Your task to perform on an android device: turn notification dots on Image 0: 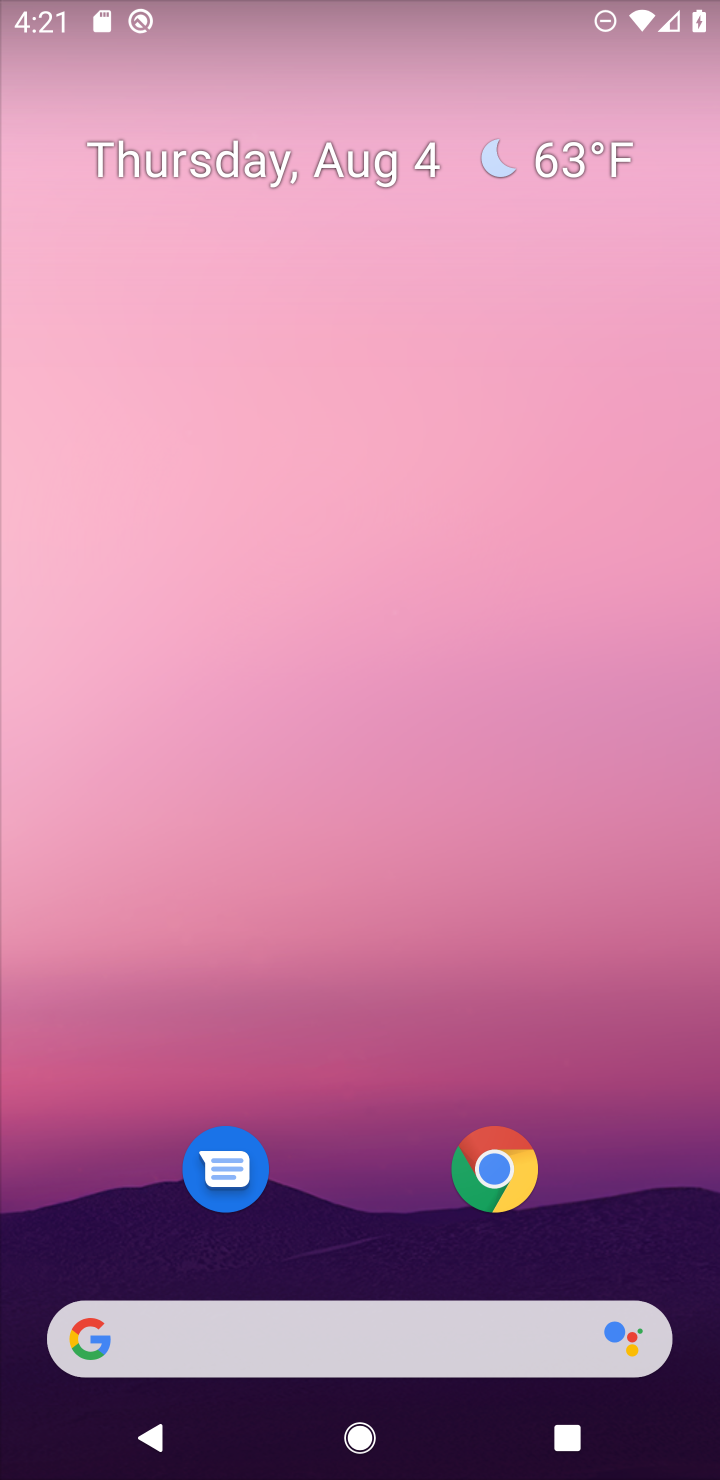
Step 0: drag from (409, 798) to (663, 8)
Your task to perform on an android device: turn notification dots on Image 1: 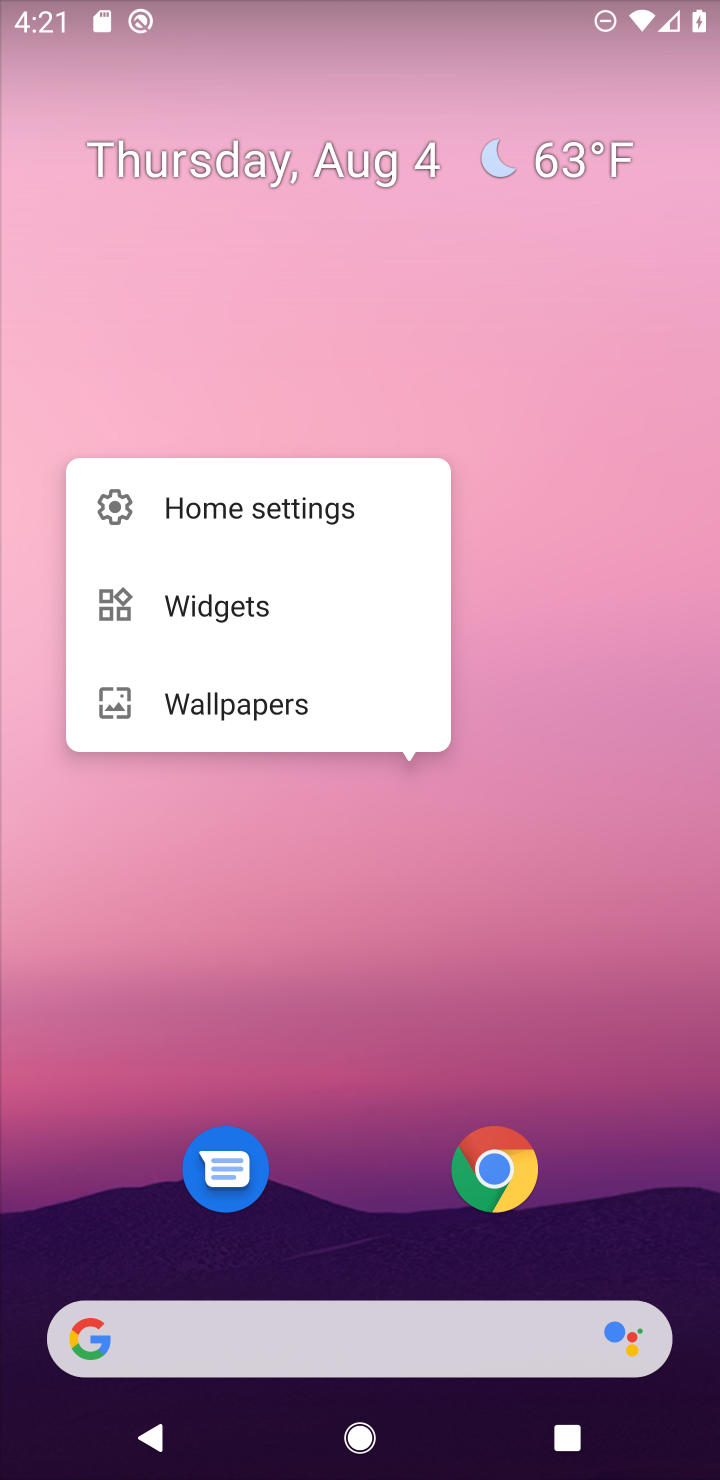
Step 1: drag from (380, 1003) to (369, 120)
Your task to perform on an android device: turn notification dots on Image 2: 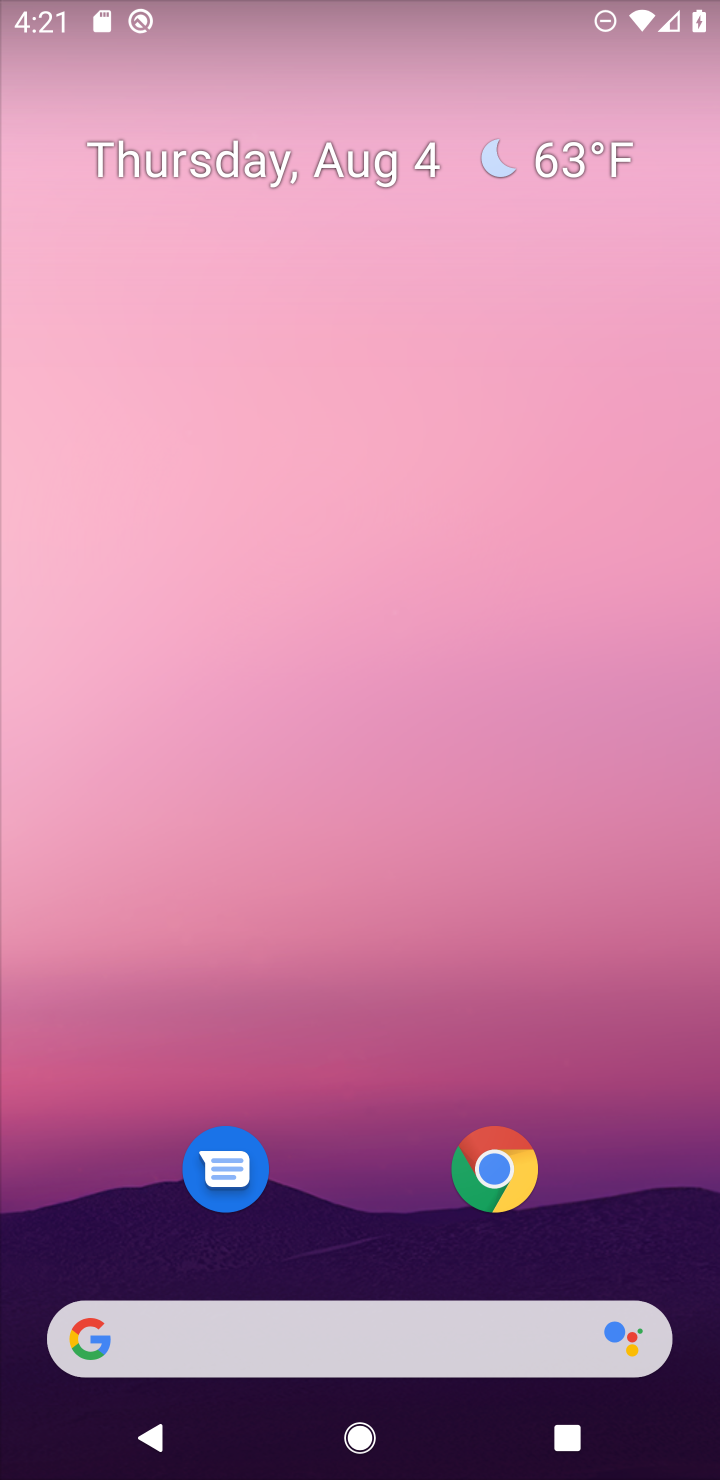
Step 2: drag from (281, 545) to (256, 47)
Your task to perform on an android device: turn notification dots on Image 3: 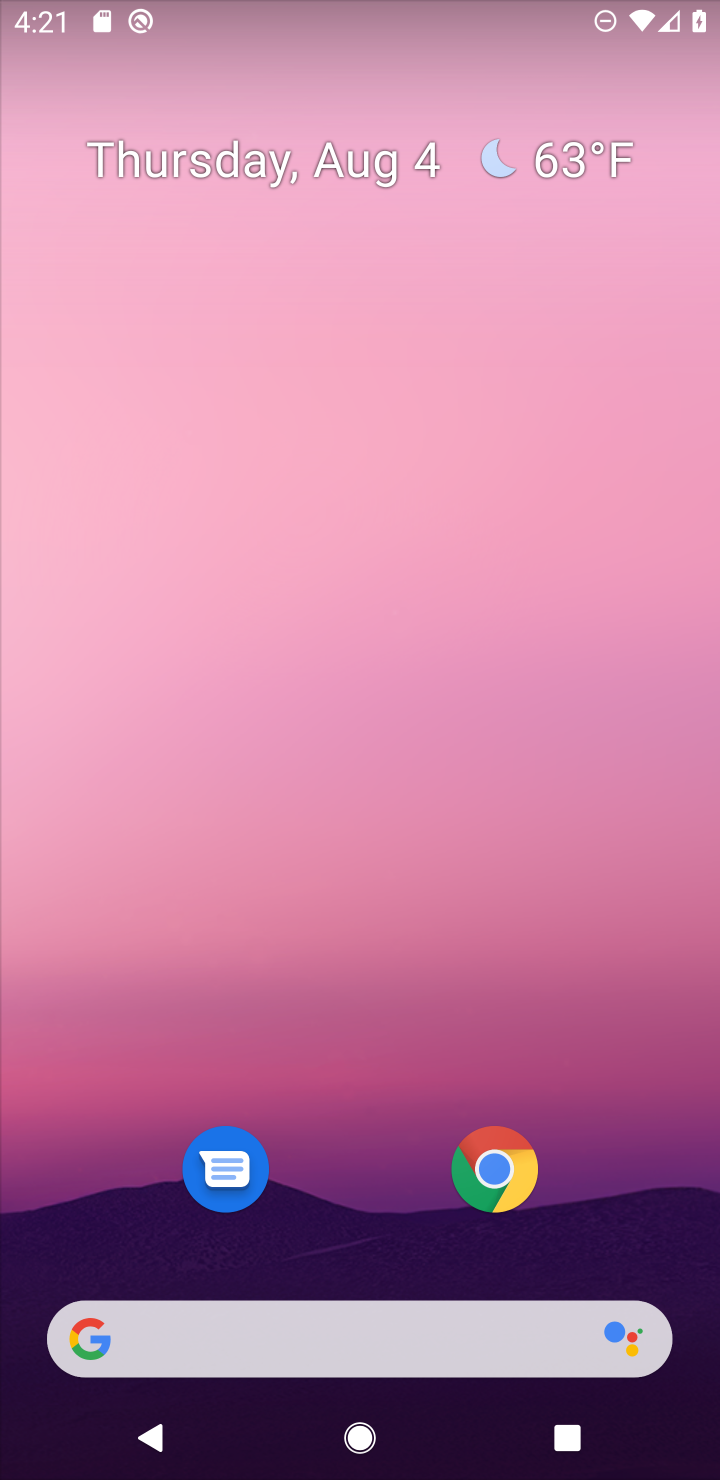
Step 3: drag from (377, 985) to (585, 14)
Your task to perform on an android device: turn notification dots on Image 4: 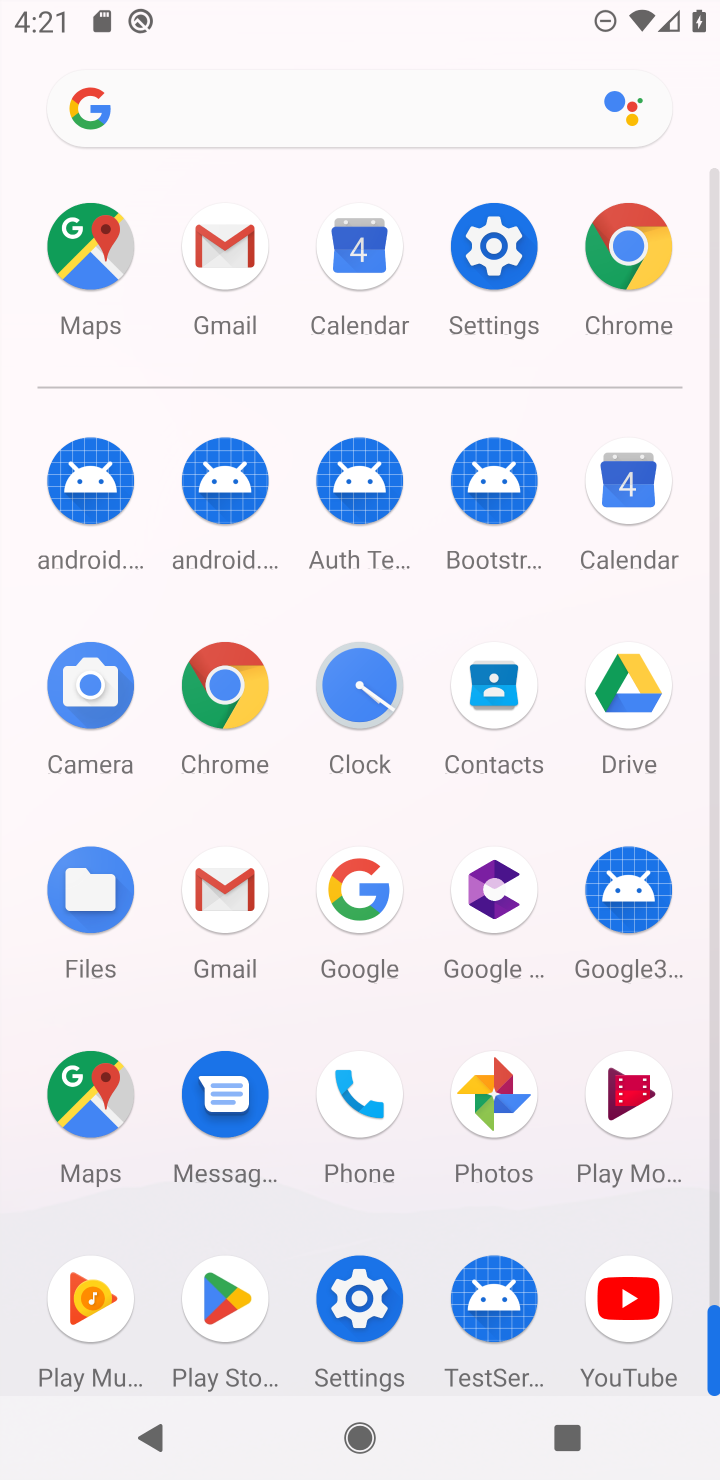
Step 4: click (502, 284)
Your task to perform on an android device: turn notification dots on Image 5: 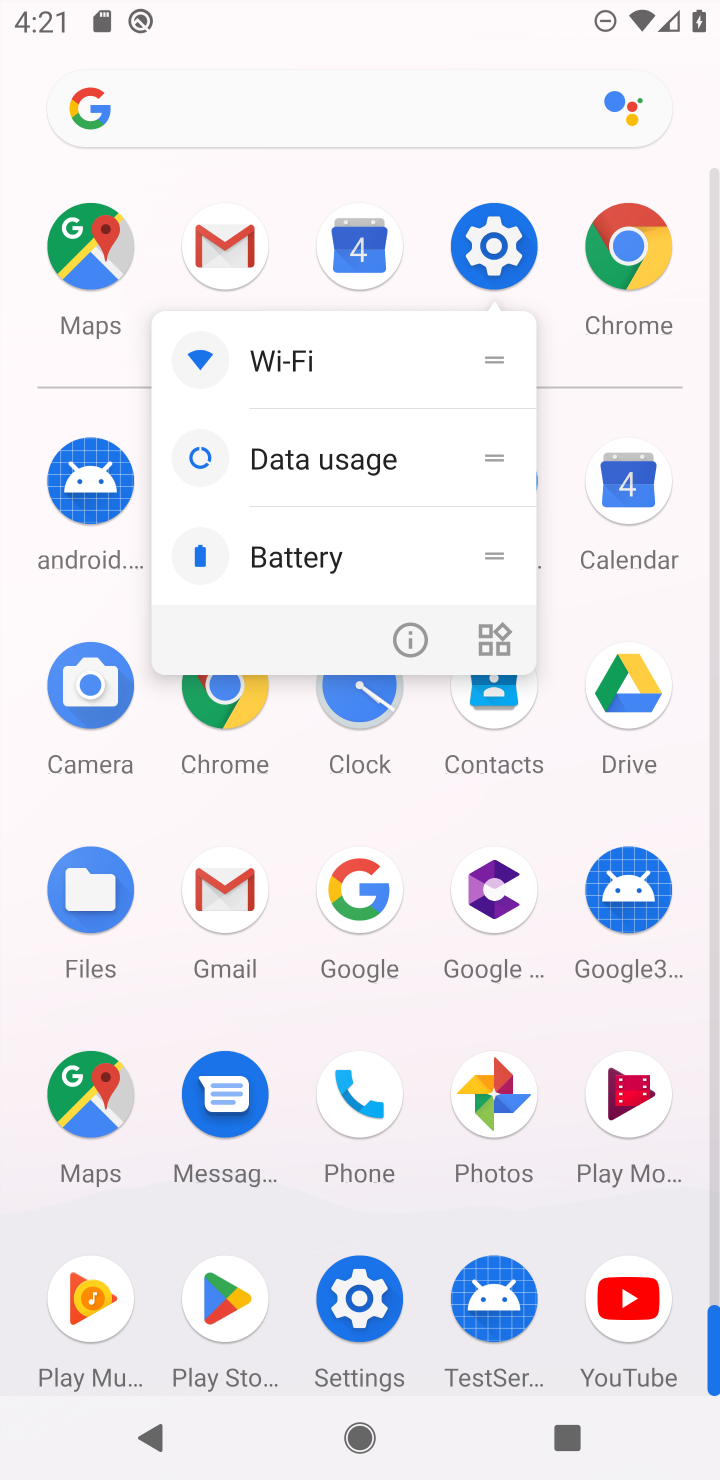
Step 5: click (492, 256)
Your task to perform on an android device: turn notification dots on Image 6: 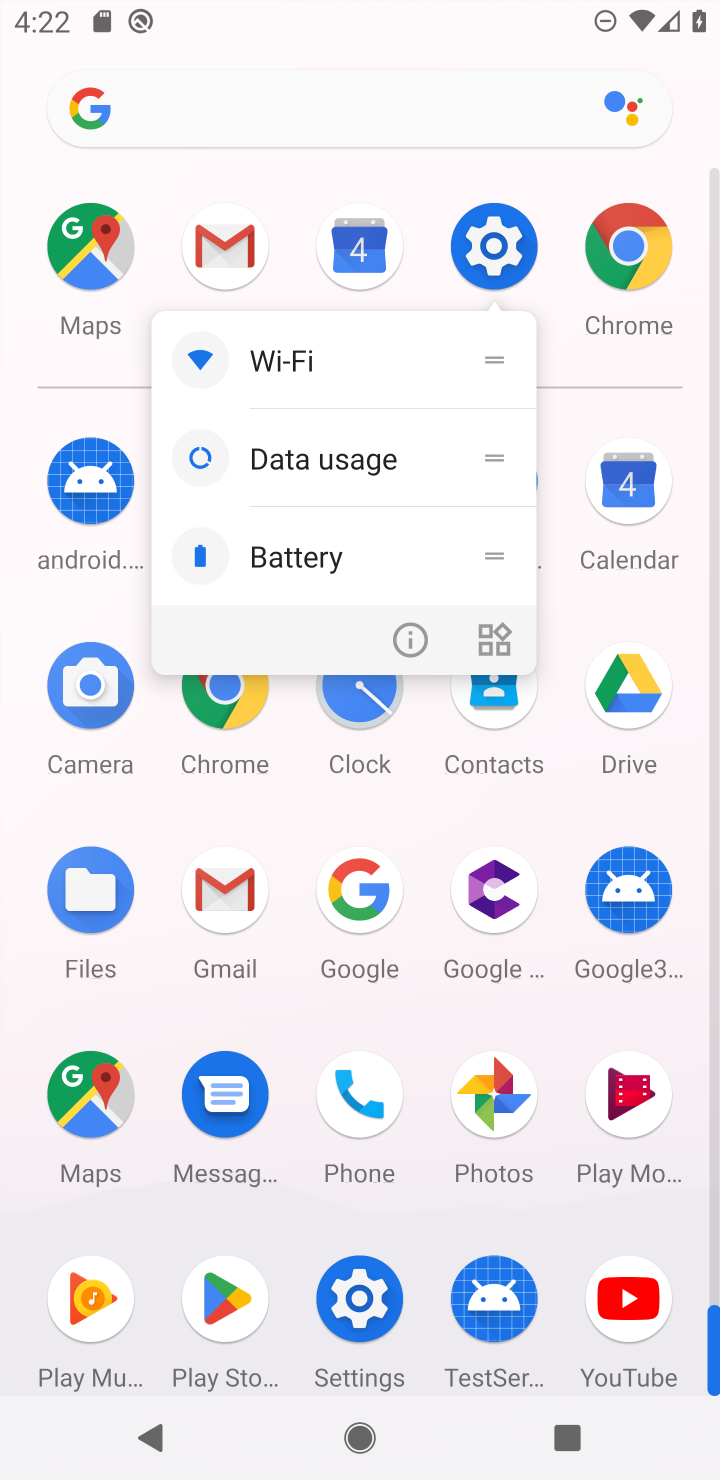
Step 6: click (490, 254)
Your task to perform on an android device: turn notification dots on Image 7: 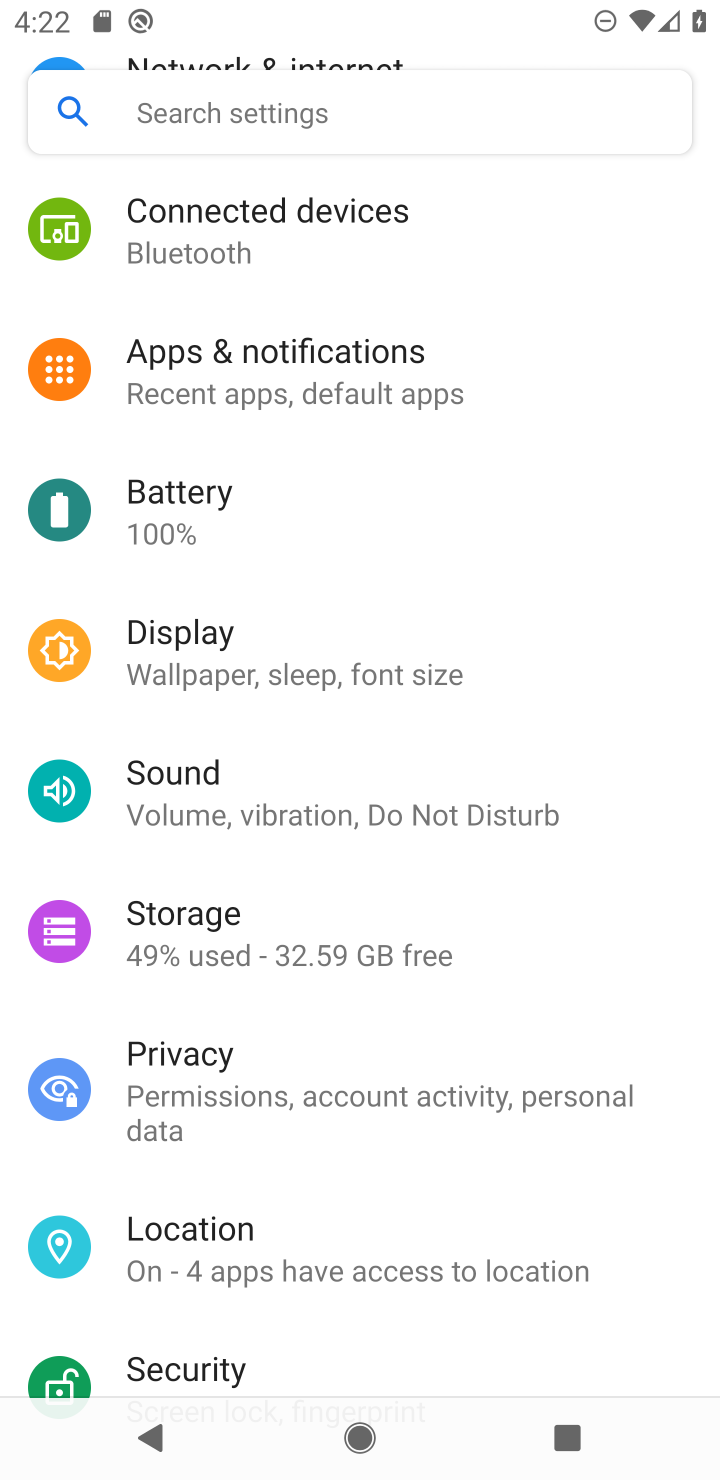
Step 7: drag from (468, 291) to (398, 842)
Your task to perform on an android device: turn notification dots on Image 8: 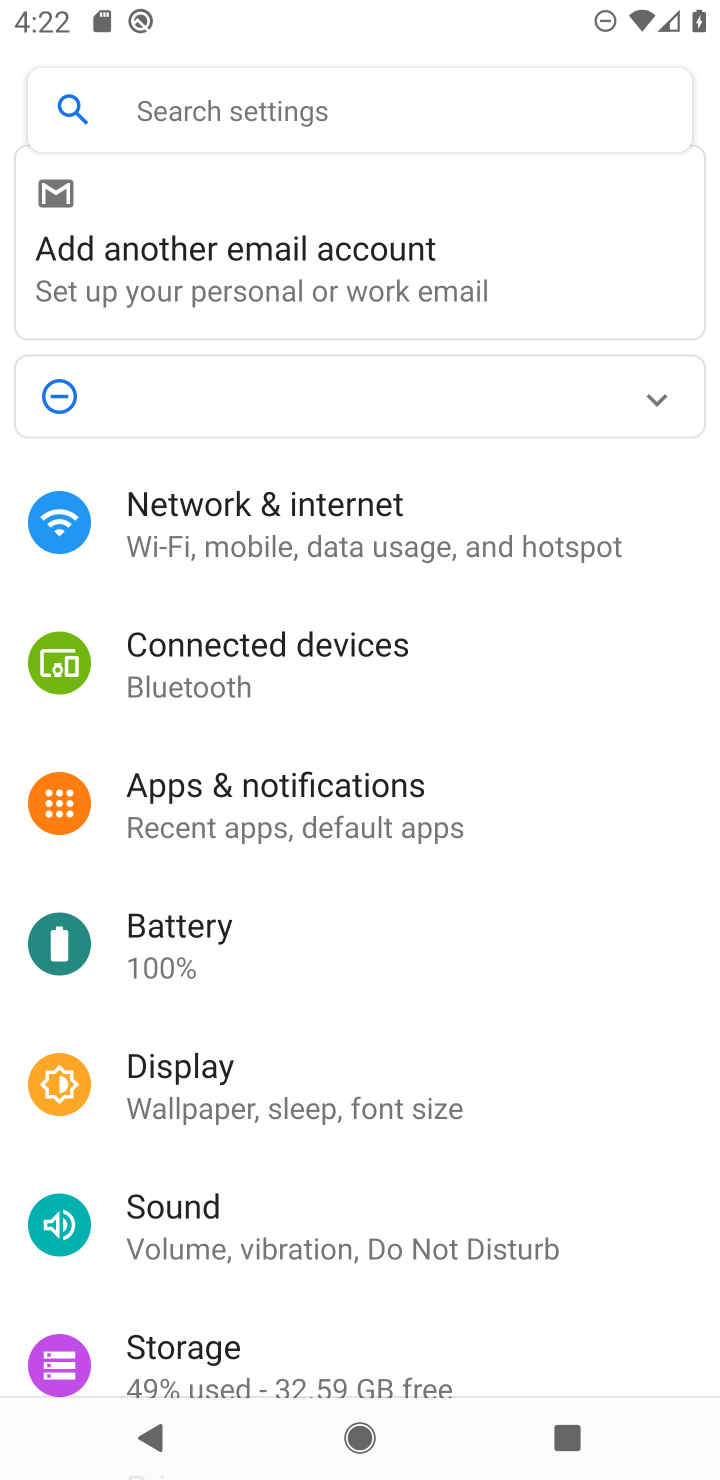
Step 8: click (311, 789)
Your task to perform on an android device: turn notification dots on Image 9: 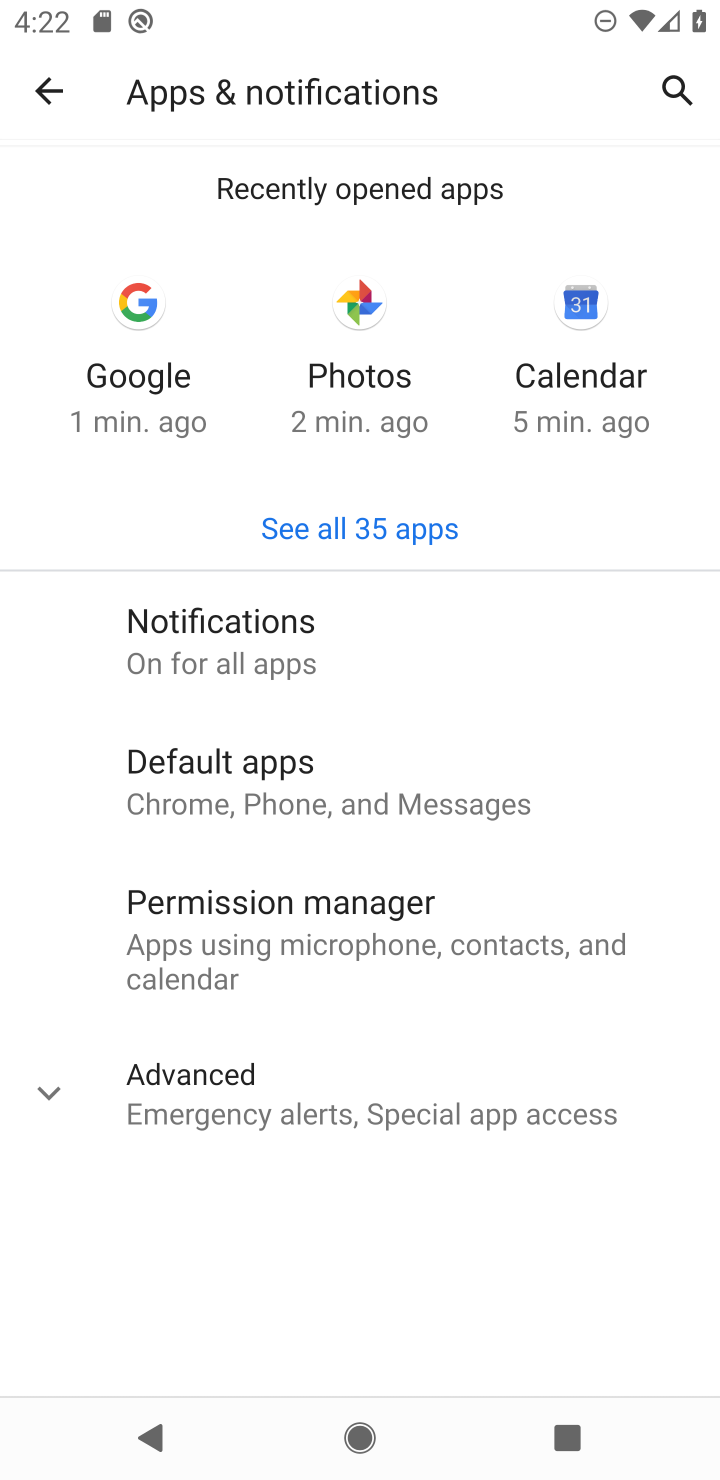
Step 9: click (276, 624)
Your task to perform on an android device: turn notification dots on Image 10: 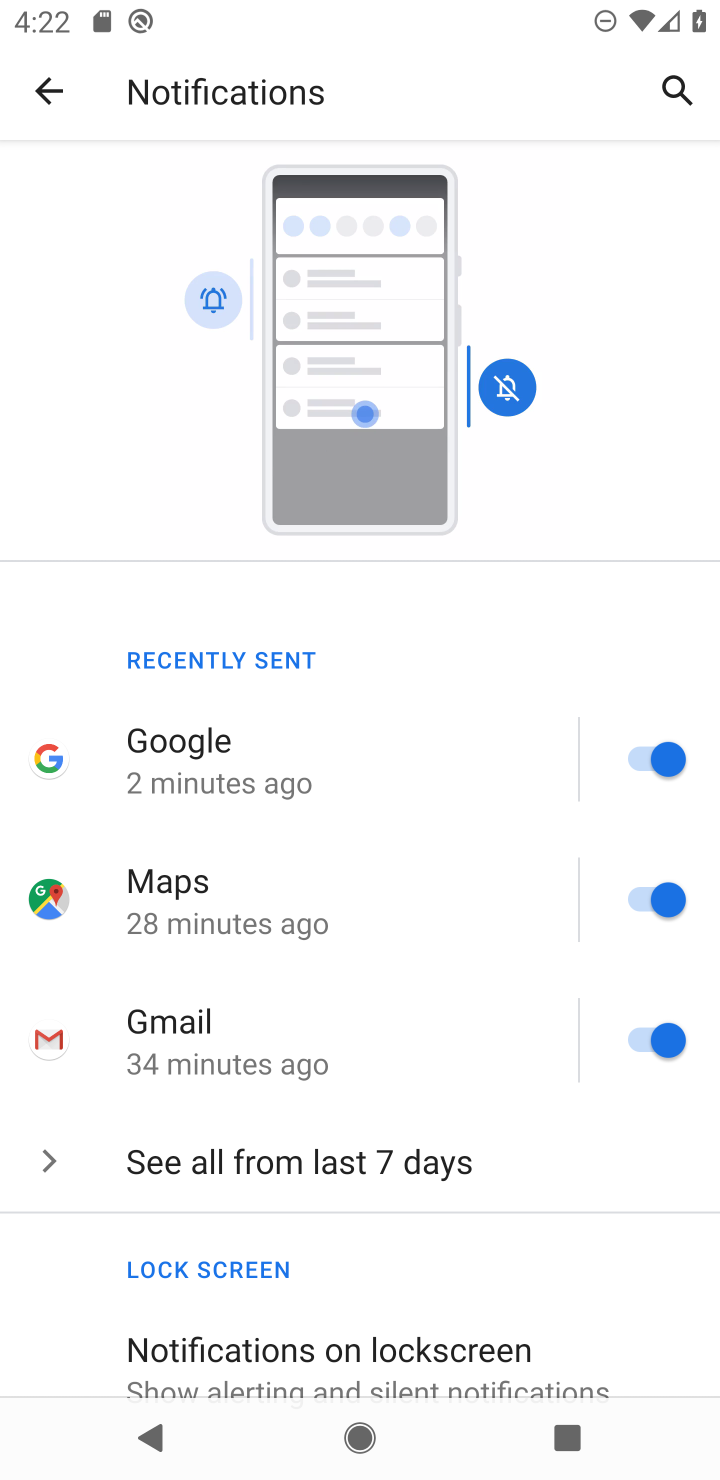
Step 10: drag from (318, 1208) to (337, 329)
Your task to perform on an android device: turn notification dots on Image 11: 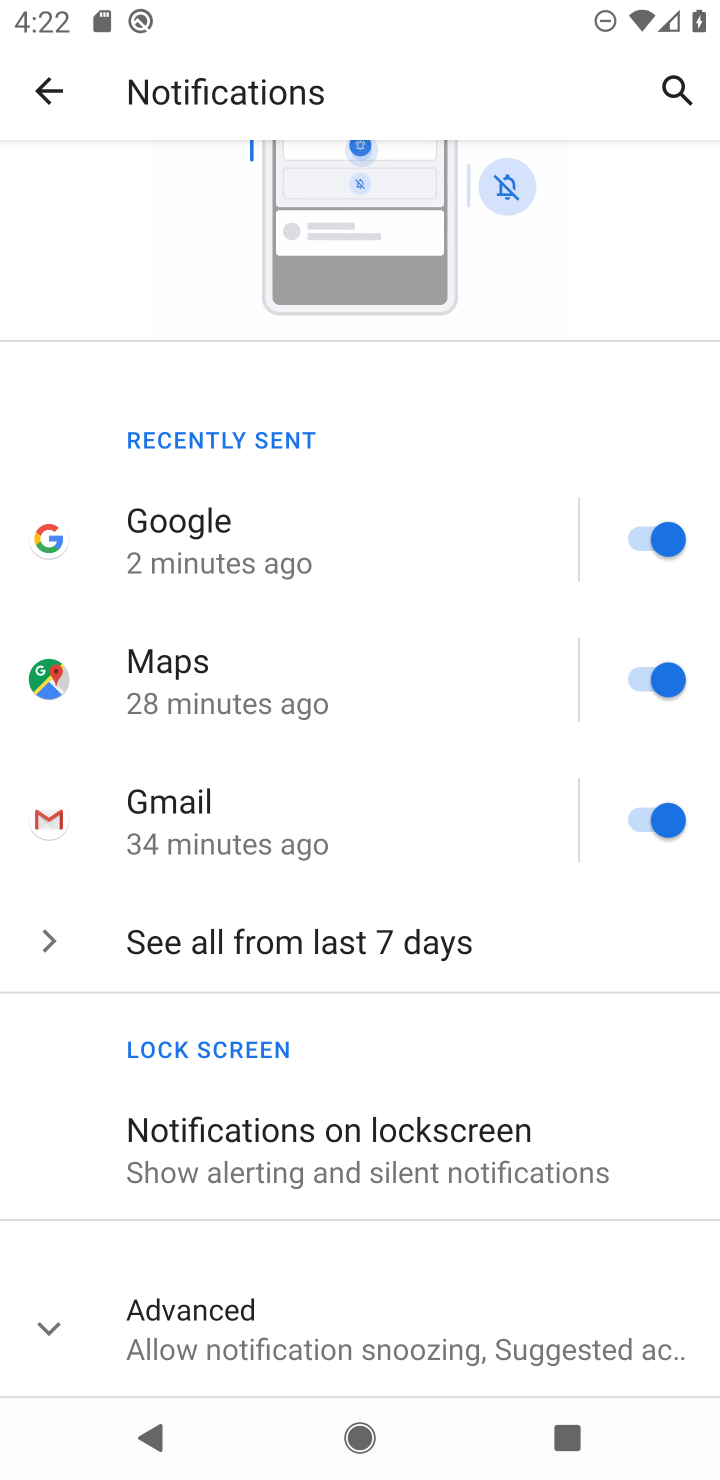
Step 11: click (204, 1326)
Your task to perform on an android device: turn notification dots on Image 12: 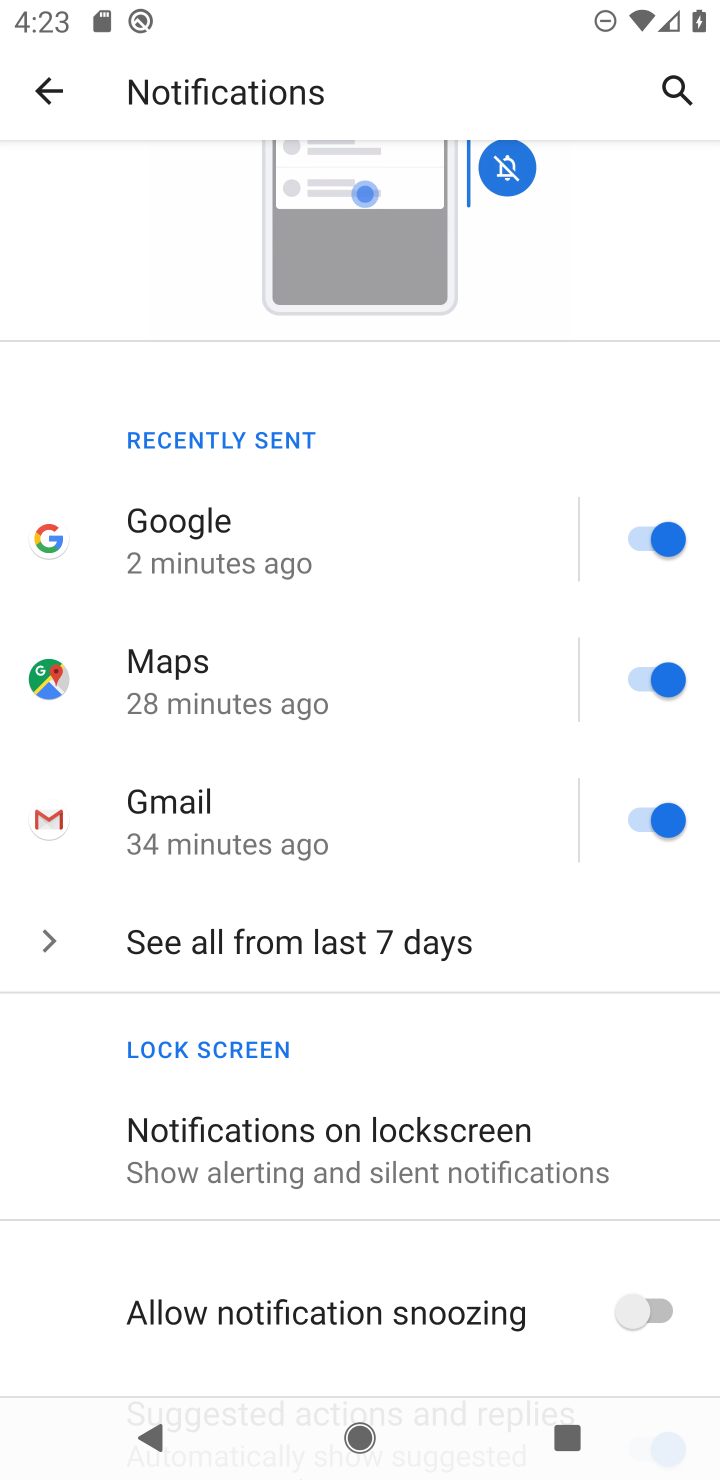
Step 12: task complete